Your task to perform on an android device: Search for custom t-shirts on Etsy. Image 0: 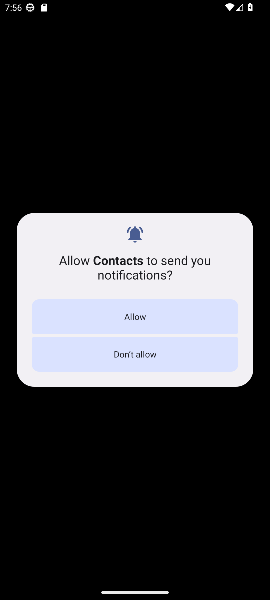
Step 0: press home button
Your task to perform on an android device: Search for custom t-shirts on Etsy. Image 1: 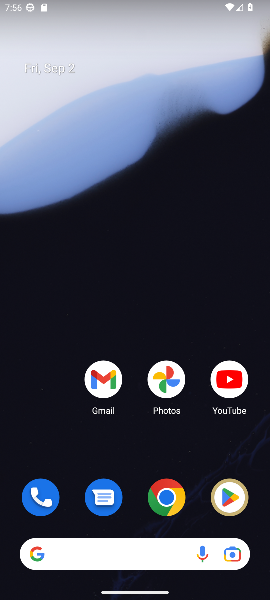
Step 1: drag from (118, 441) to (127, 77)
Your task to perform on an android device: Search for custom t-shirts on Etsy. Image 2: 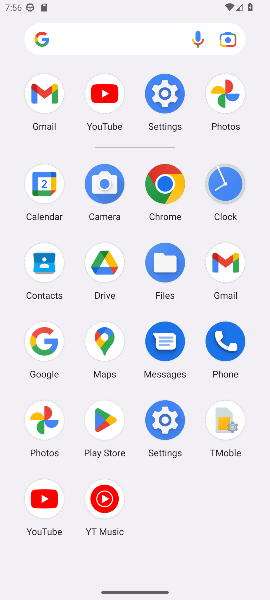
Step 2: click (38, 341)
Your task to perform on an android device: Search for custom t-shirts on Etsy. Image 3: 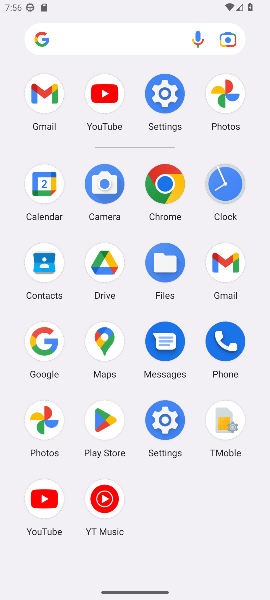
Step 3: click (38, 341)
Your task to perform on an android device: Search for custom t-shirts on Etsy. Image 4: 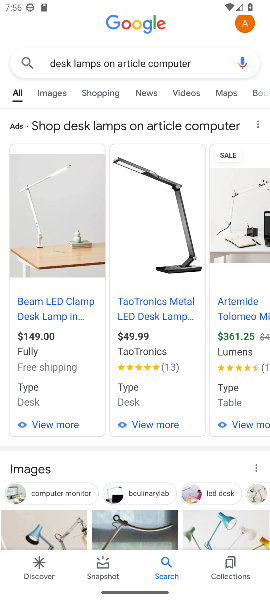
Step 4: click (172, 66)
Your task to perform on an android device: Search for custom t-shirts on Etsy. Image 5: 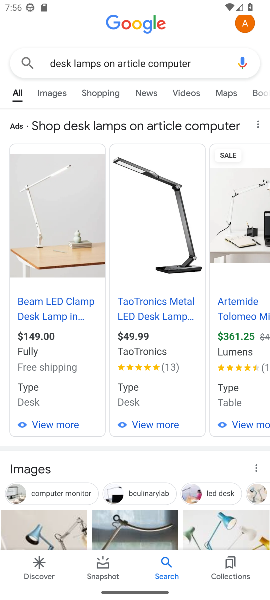
Step 5: click (172, 66)
Your task to perform on an android device: Search for custom t-shirts on Etsy. Image 6: 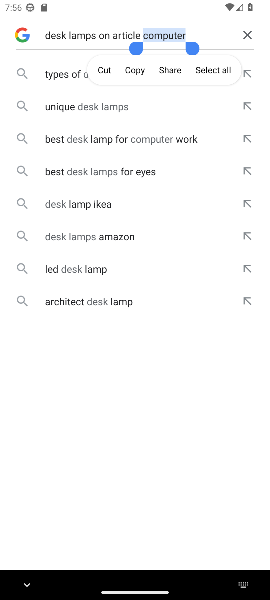
Step 6: click (245, 33)
Your task to perform on an android device: Search for custom t-shirts on Etsy. Image 7: 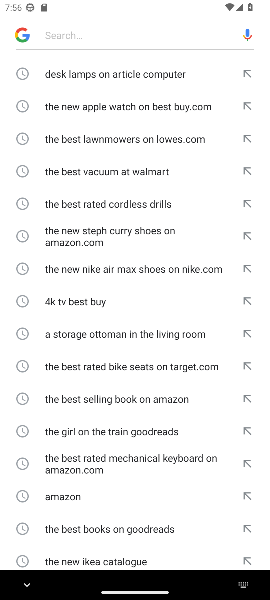
Step 7: type "custom t-shirts on Etsy."
Your task to perform on an android device: Search for custom t-shirts on Etsy. Image 8: 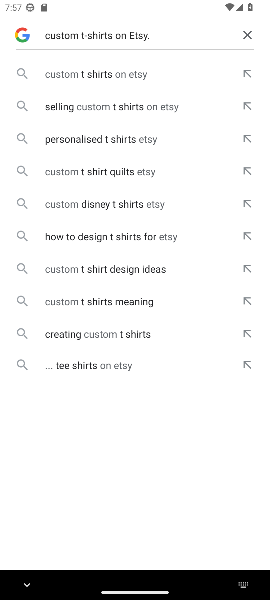
Step 8: click (84, 73)
Your task to perform on an android device: Search for custom t-shirts on Etsy. Image 9: 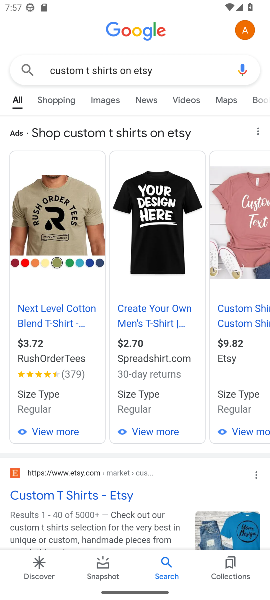
Step 9: task complete